Your task to perform on an android device: turn on airplane mode Image 0: 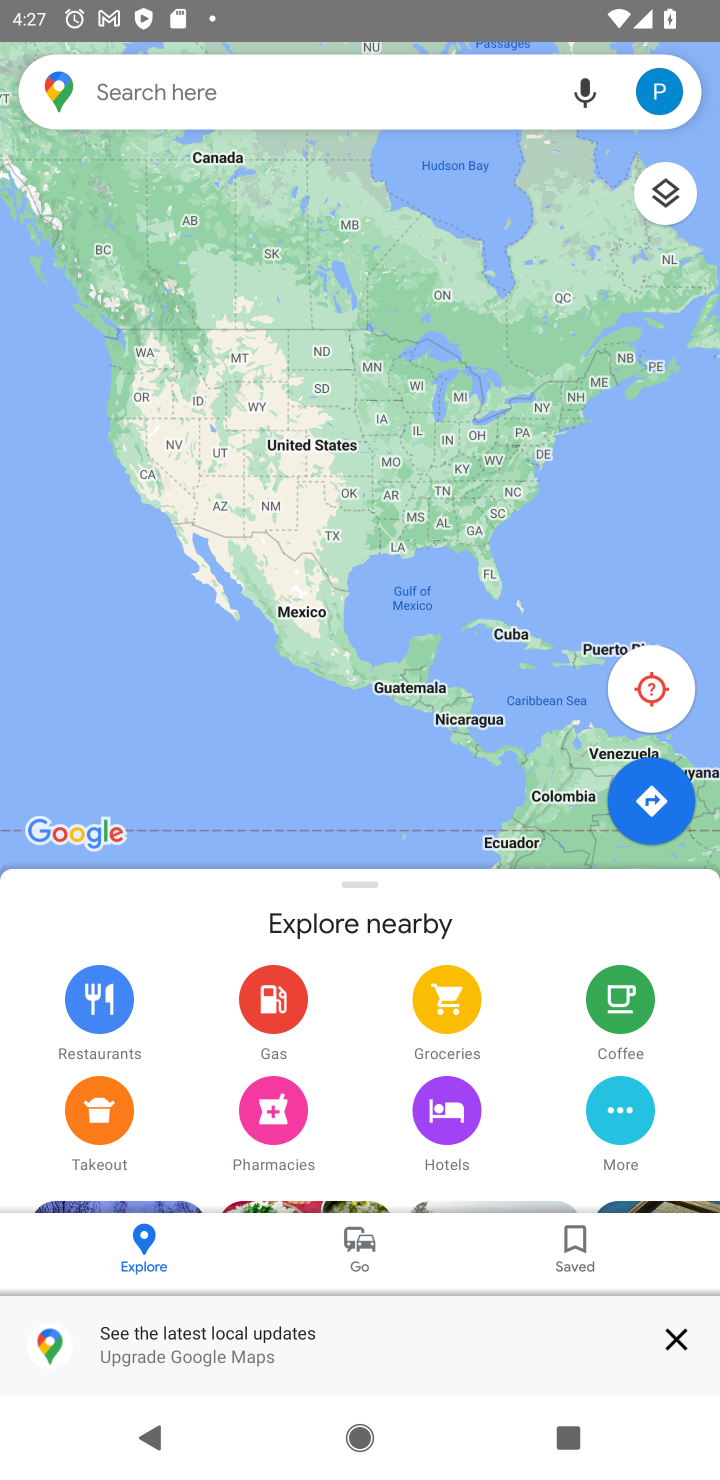
Step 0: press home button
Your task to perform on an android device: turn on airplane mode Image 1: 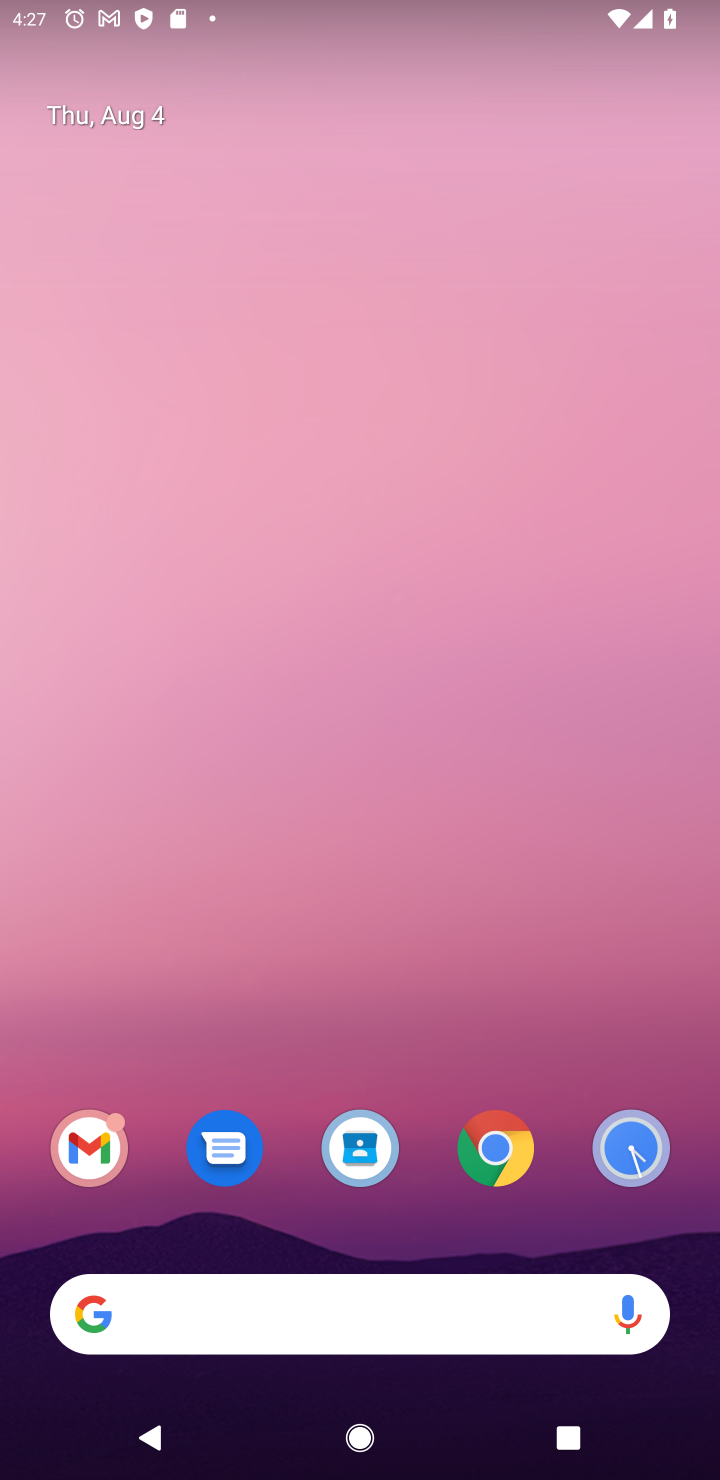
Step 1: drag from (559, 1243) to (491, 365)
Your task to perform on an android device: turn on airplane mode Image 2: 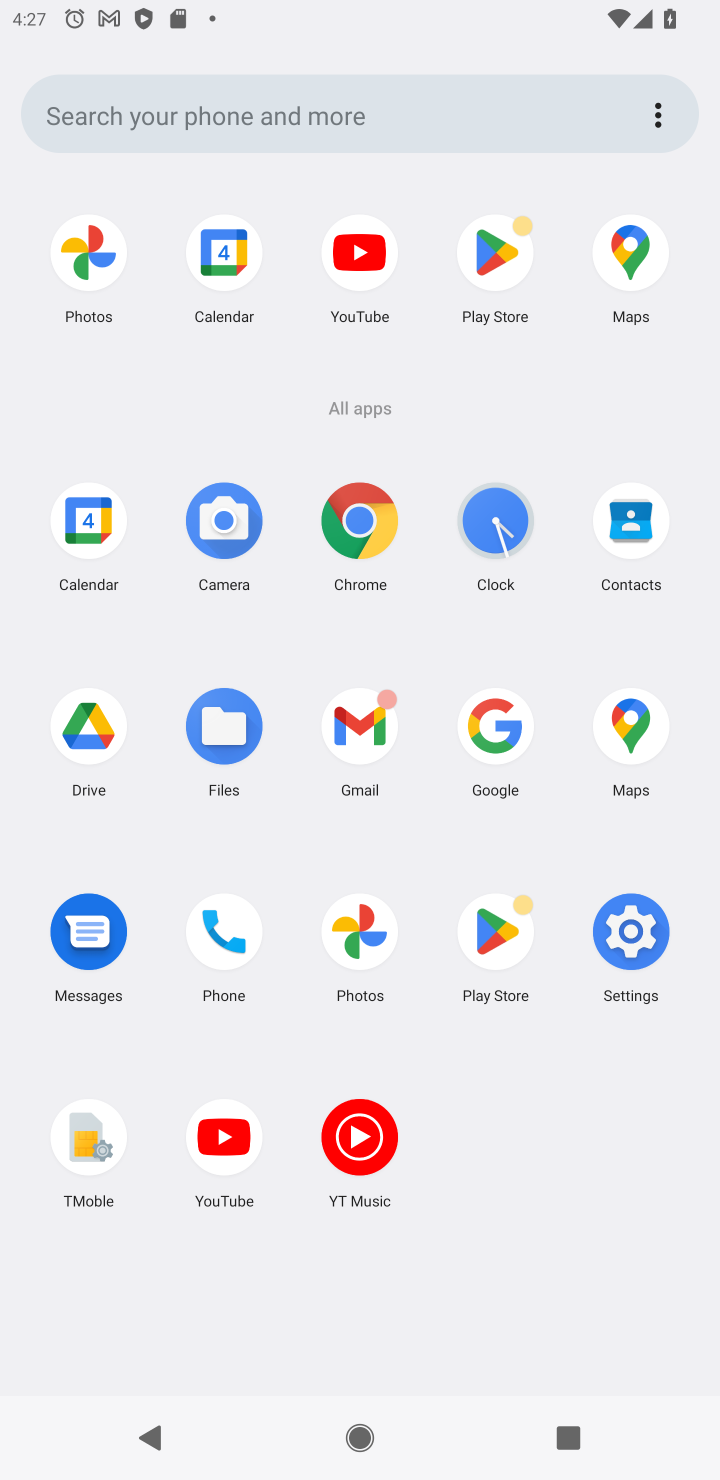
Step 2: click (629, 927)
Your task to perform on an android device: turn on airplane mode Image 3: 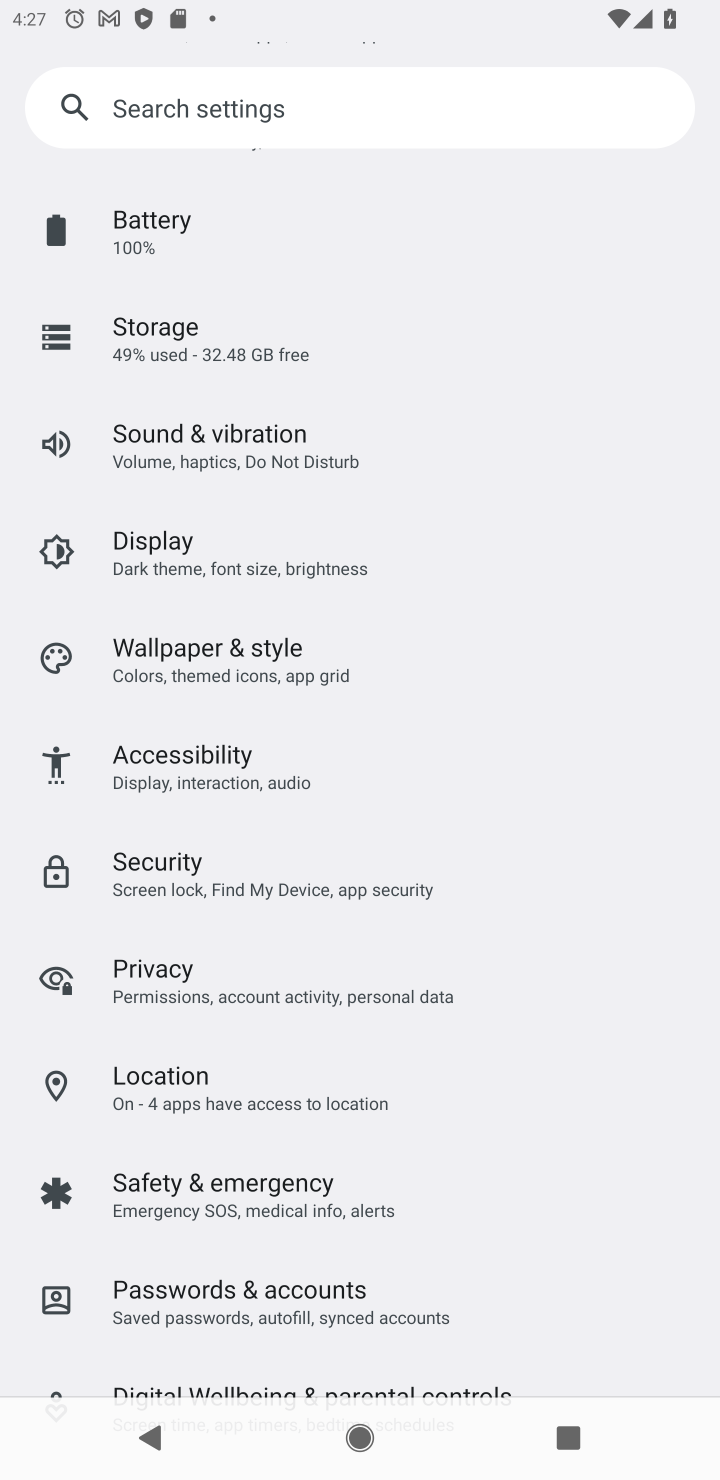
Step 3: drag from (513, 338) to (505, 823)
Your task to perform on an android device: turn on airplane mode Image 4: 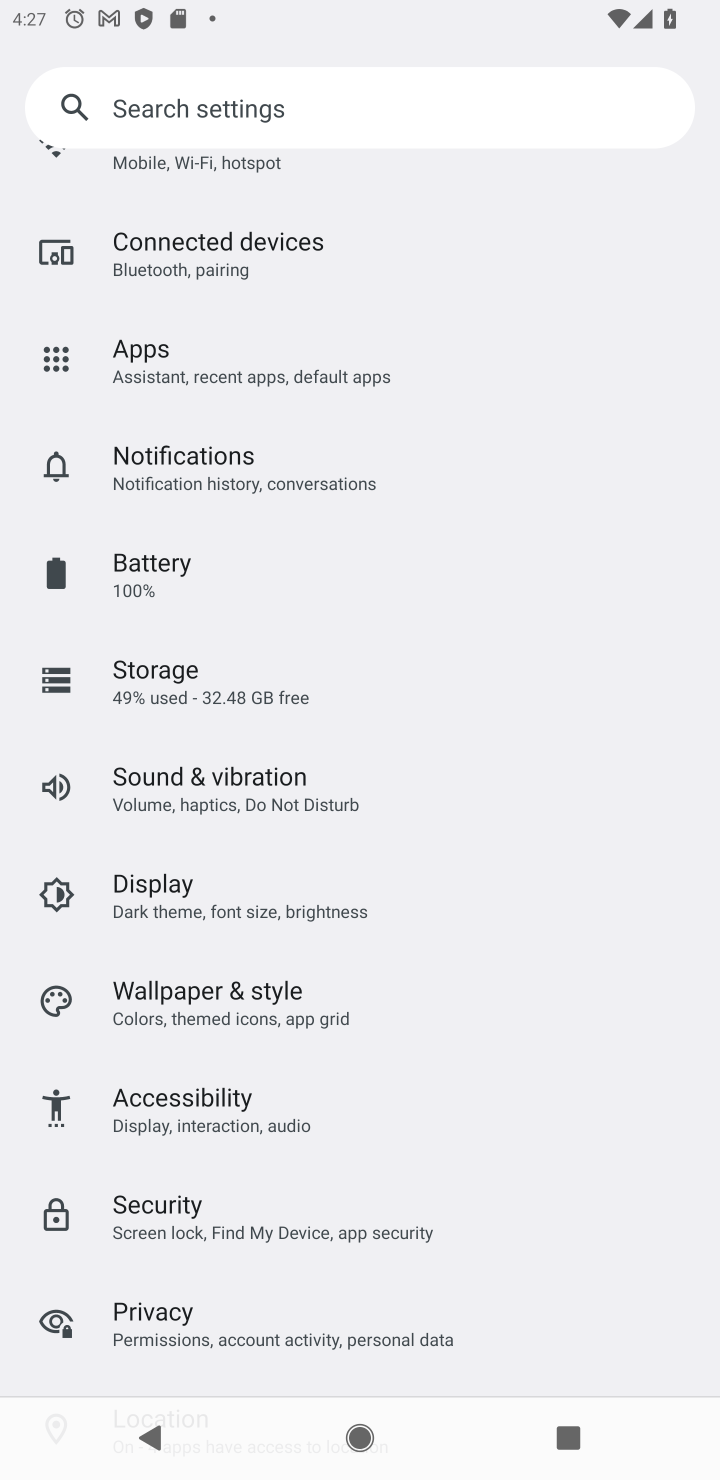
Step 4: drag from (480, 486) to (481, 892)
Your task to perform on an android device: turn on airplane mode Image 5: 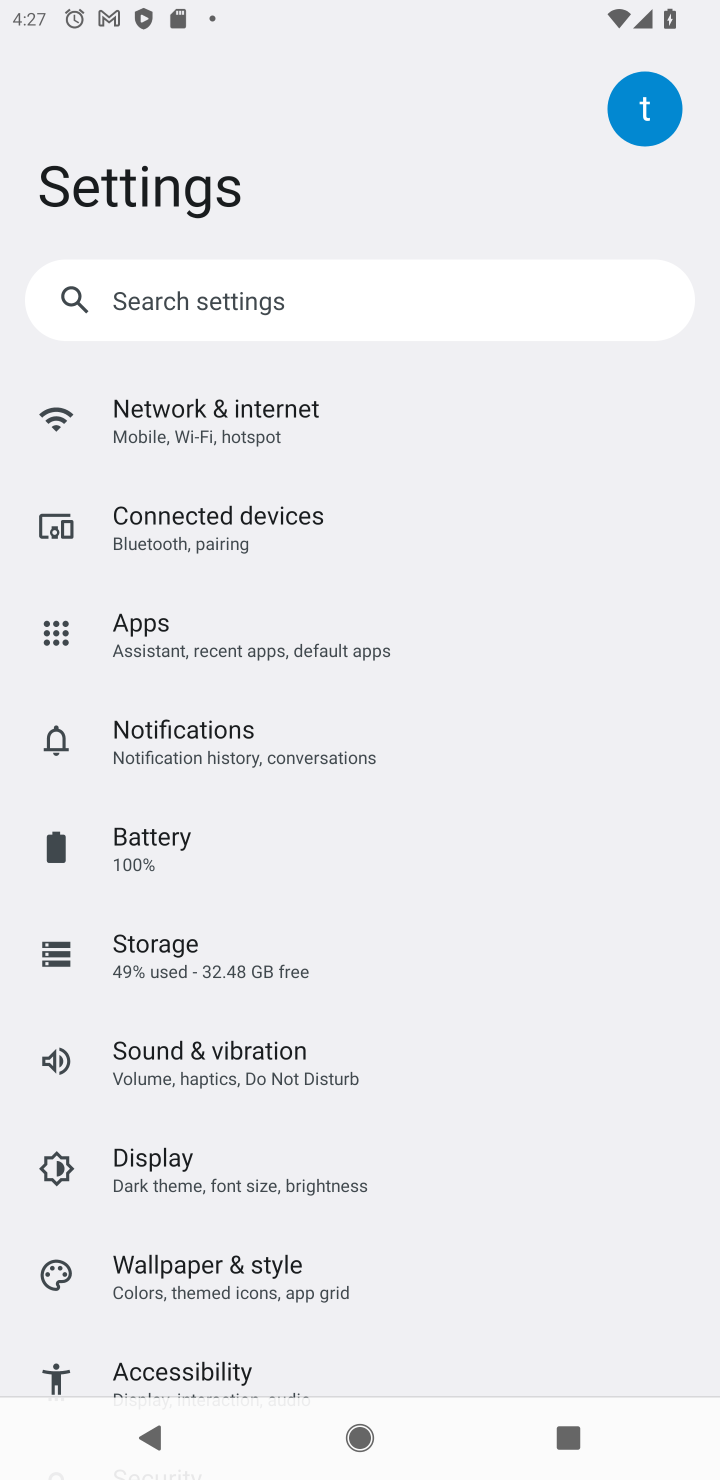
Step 5: click (177, 409)
Your task to perform on an android device: turn on airplane mode Image 6: 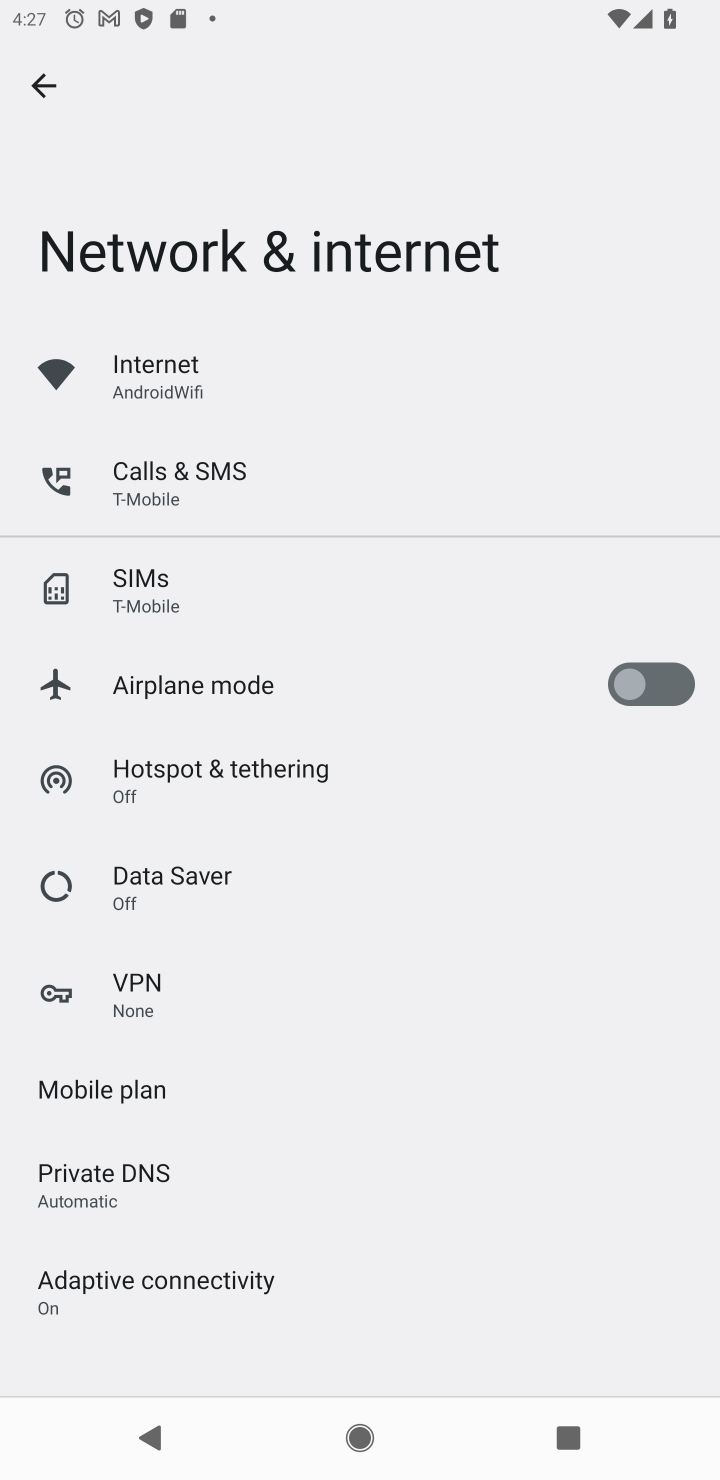
Step 6: click (676, 686)
Your task to perform on an android device: turn on airplane mode Image 7: 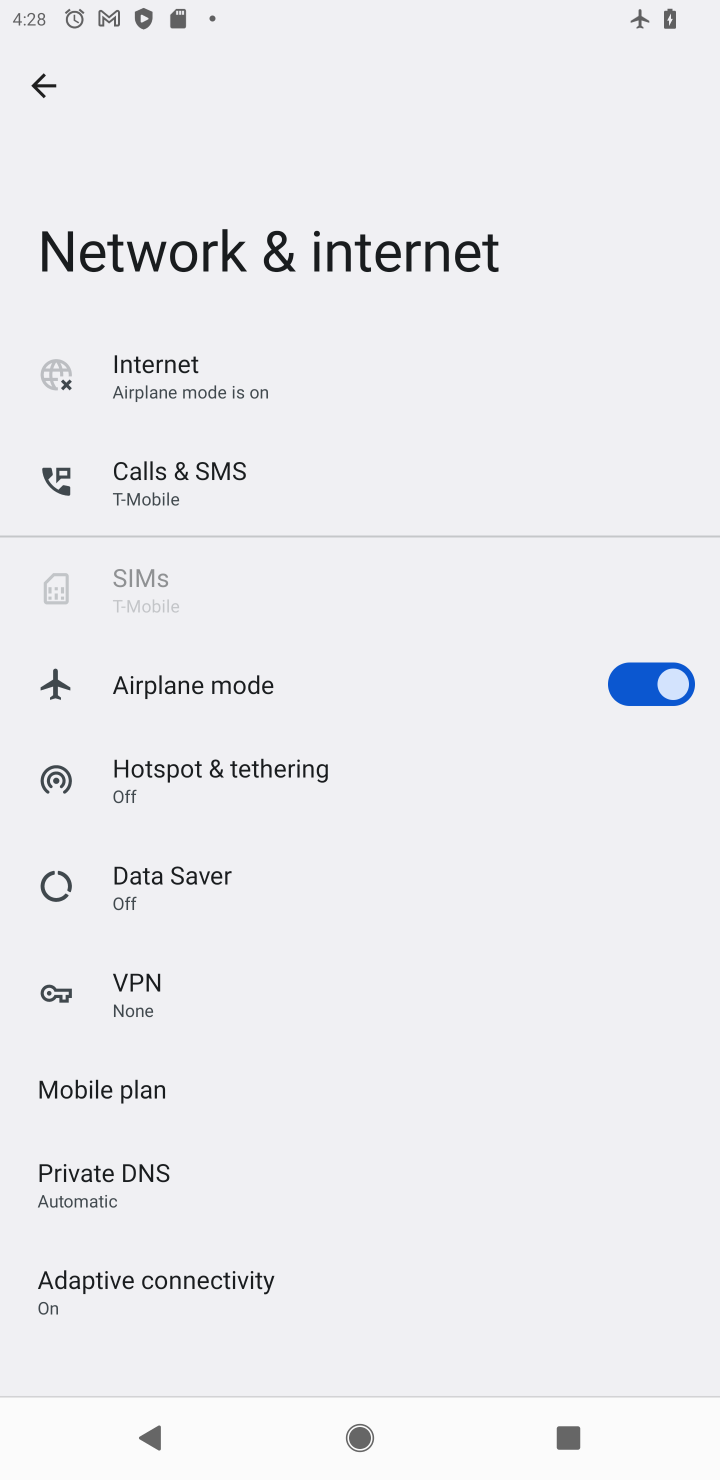
Step 7: task complete